Your task to perform on an android device: change your default location settings in chrome Image 0: 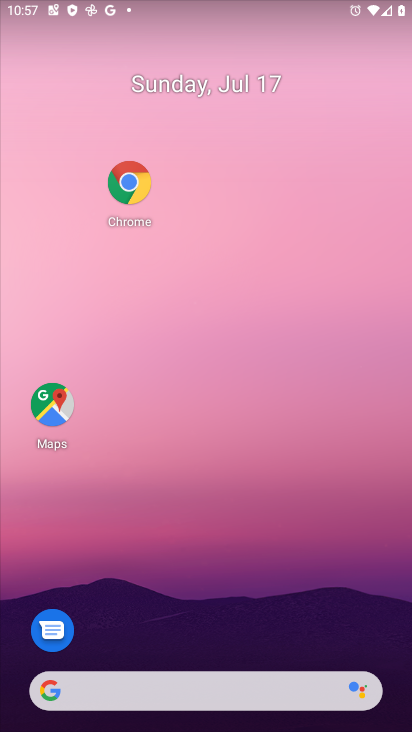
Step 0: click (123, 190)
Your task to perform on an android device: change your default location settings in chrome Image 1: 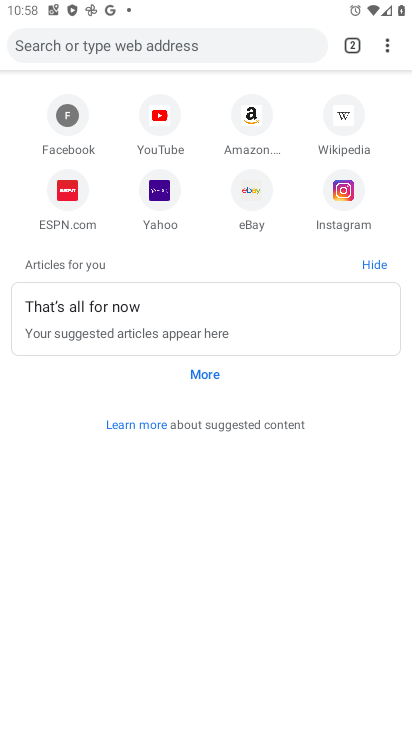
Step 1: click (386, 42)
Your task to perform on an android device: change your default location settings in chrome Image 2: 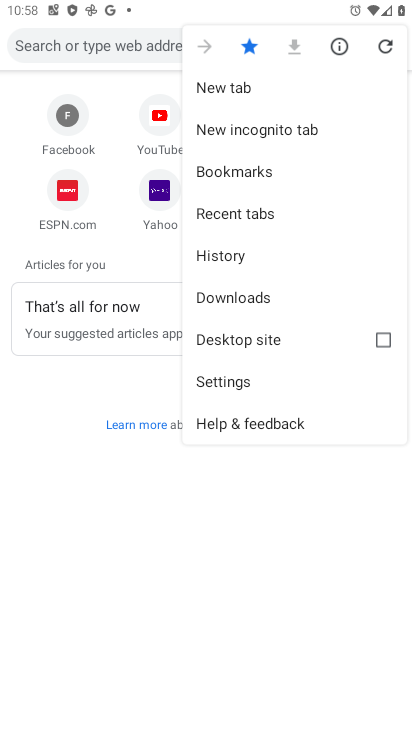
Step 2: click (239, 390)
Your task to perform on an android device: change your default location settings in chrome Image 3: 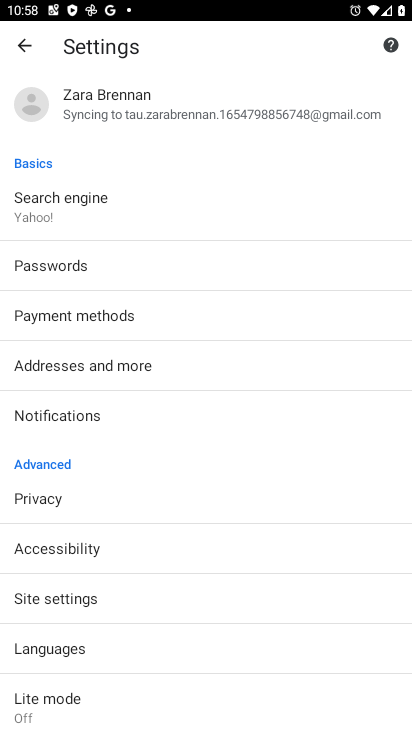
Step 3: click (71, 603)
Your task to perform on an android device: change your default location settings in chrome Image 4: 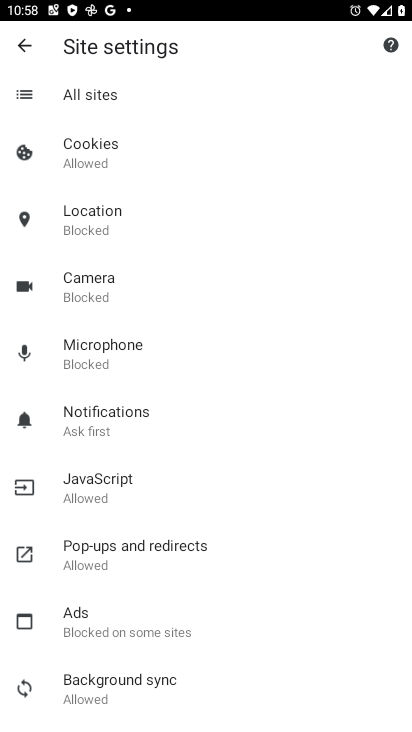
Step 4: click (99, 212)
Your task to perform on an android device: change your default location settings in chrome Image 5: 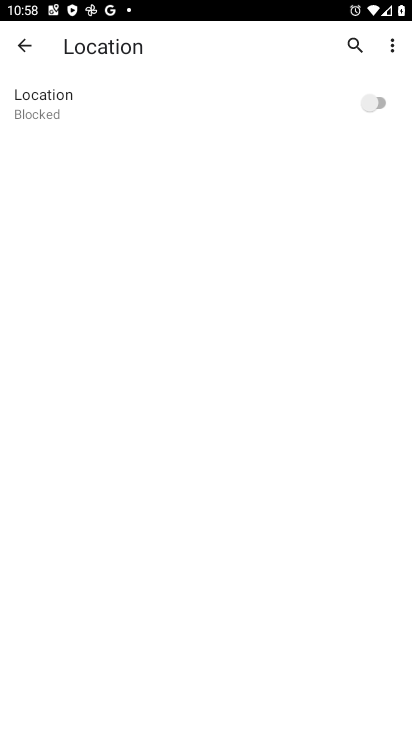
Step 5: drag from (183, 212) to (379, 98)
Your task to perform on an android device: change your default location settings in chrome Image 6: 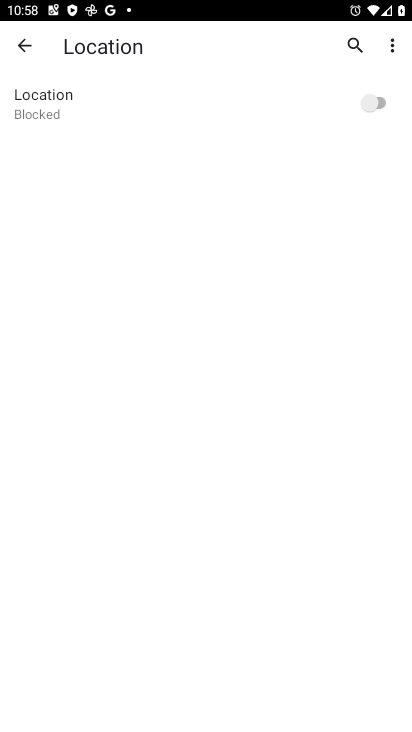
Step 6: click (379, 98)
Your task to perform on an android device: change your default location settings in chrome Image 7: 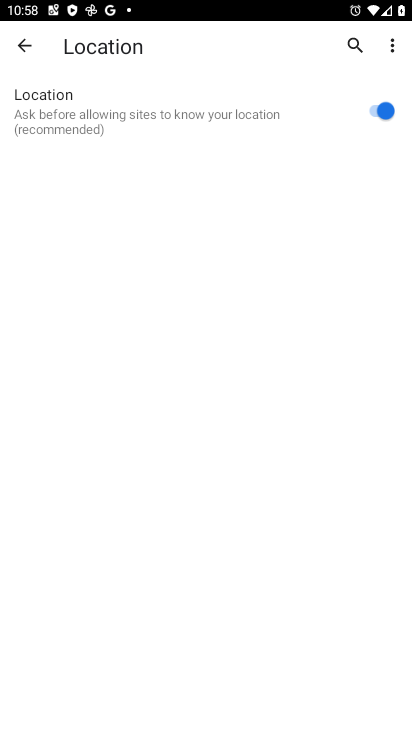
Step 7: task complete